Your task to perform on an android device: Play the last video I watched on Youtube Image 0: 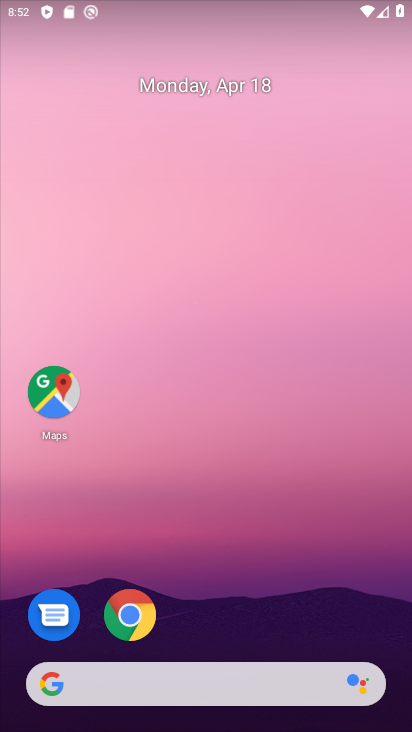
Step 0: drag from (293, 549) to (345, 106)
Your task to perform on an android device: Play the last video I watched on Youtube Image 1: 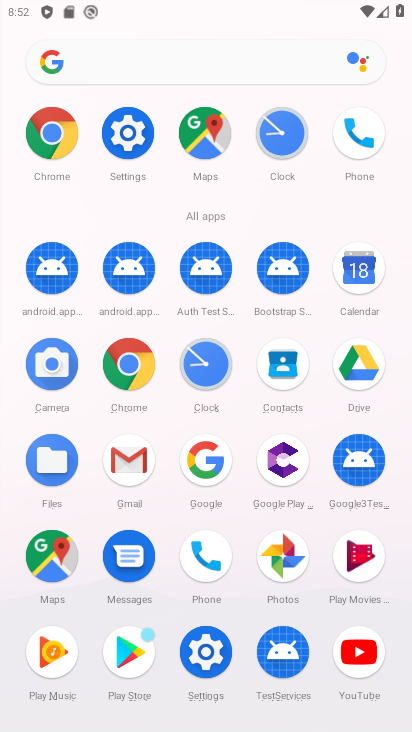
Step 1: click (359, 648)
Your task to perform on an android device: Play the last video I watched on Youtube Image 2: 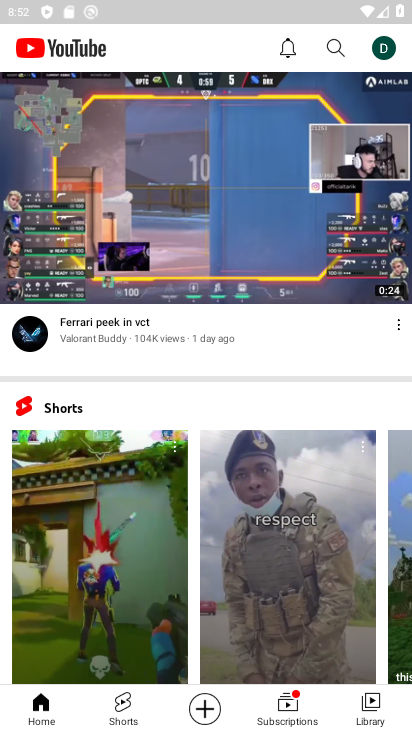
Step 2: click (365, 715)
Your task to perform on an android device: Play the last video I watched on Youtube Image 3: 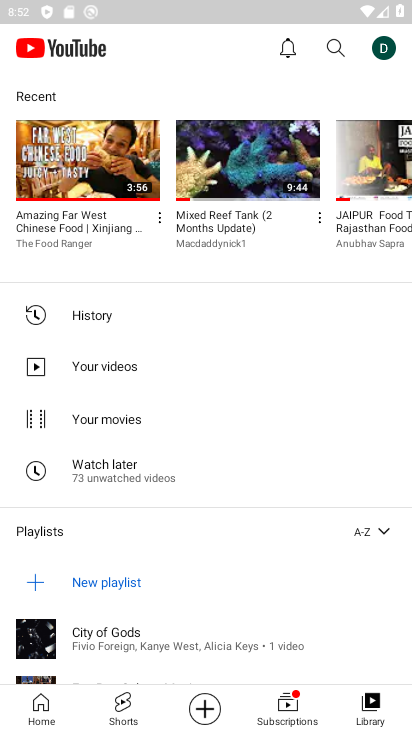
Step 3: click (103, 186)
Your task to perform on an android device: Play the last video I watched on Youtube Image 4: 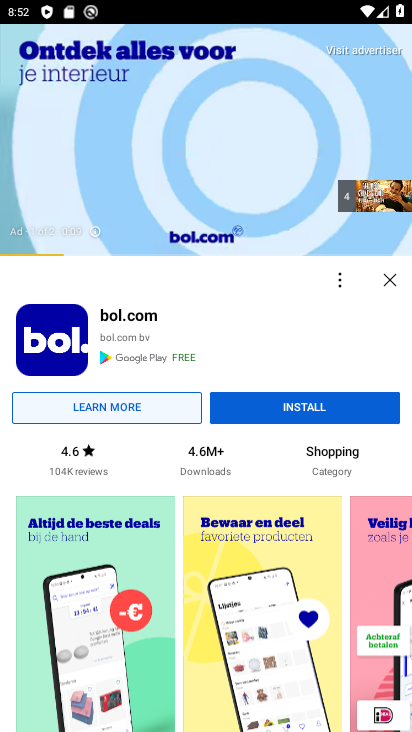
Step 4: task complete